Your task to perform on an android device: open chrome and create a bookmark for the current page Image 0: 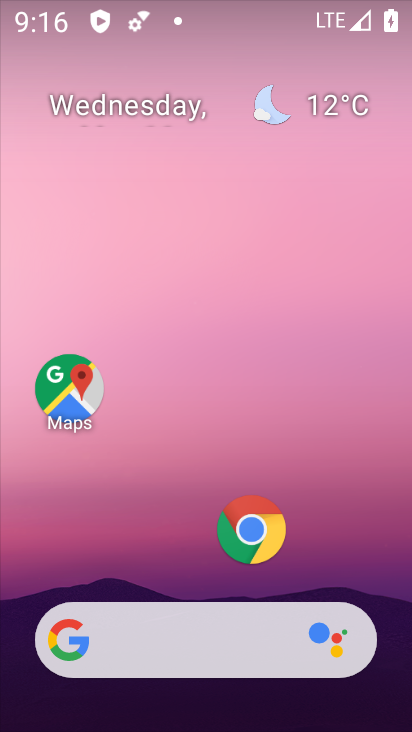
Step 0: click (263, 534)
Your task to perform on an android device: open chrome and create a bookmark for the current page Image 1: 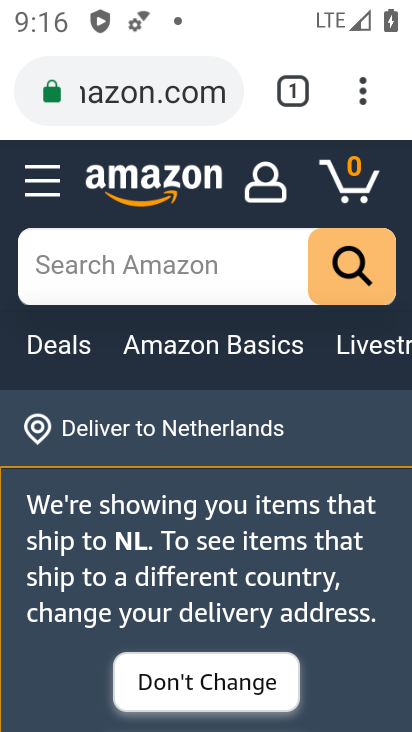
Step 1: click (363, 95)
Your task to perform on an android device: open chrome and create a bookmark for the current page Image 2: 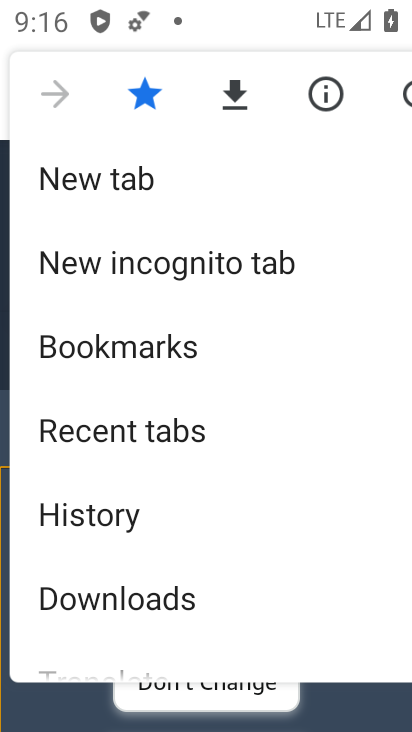
Step 2: click (141, 97)
Your task to perform on an android device: open chrome and create a bookmark for the current page Image 3: 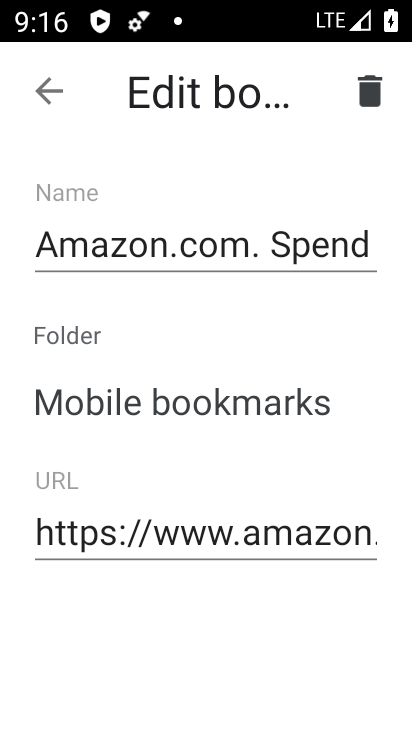
Step 3: click (371, 96)
Your task to perform on an android device: open chrome and create a bookmark for the current page Image 4: 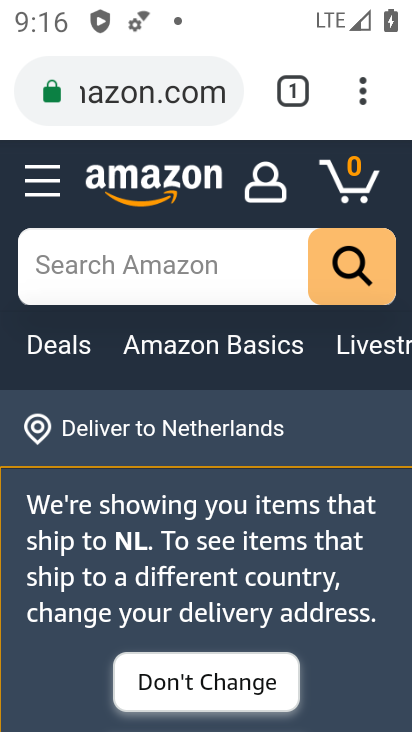
Step 4: click (363, 82)
Your task to perform on an android device: open chrome and create a bookmark for the current page Image 5: 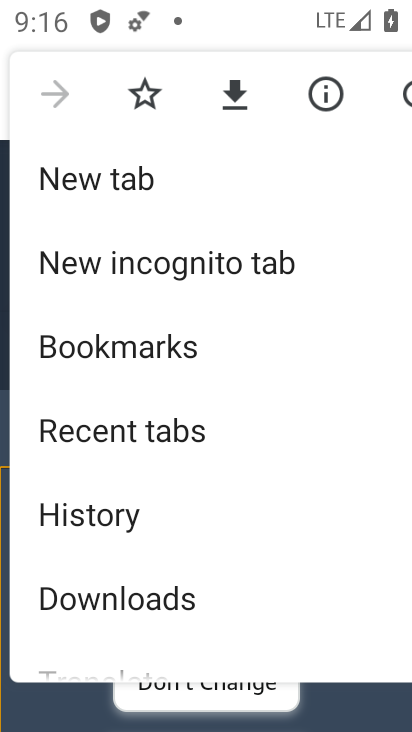
Step 5: click (132, 81)
Your task to perform on an android device: open chrome and create a bookmark for the current page Image 6: 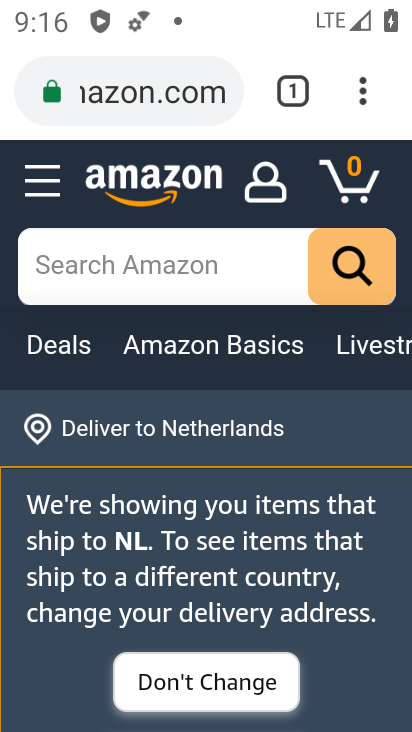
Step 6: task complete